Your task to perform on an android device: Go to eBay Image 0: 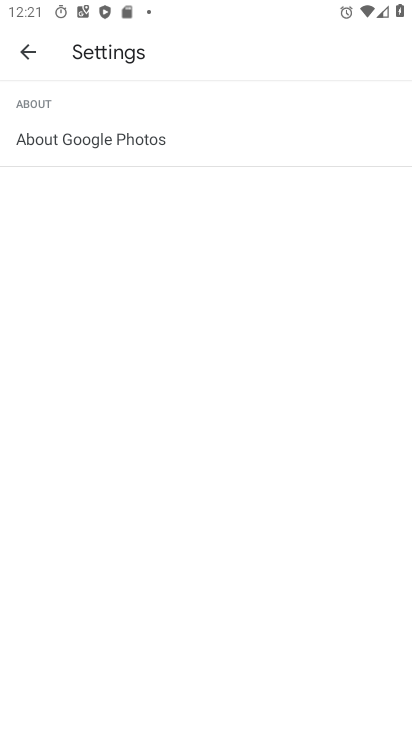
Step 0: press home button
Your task to perform on an android device: Go to eBay Image 1: 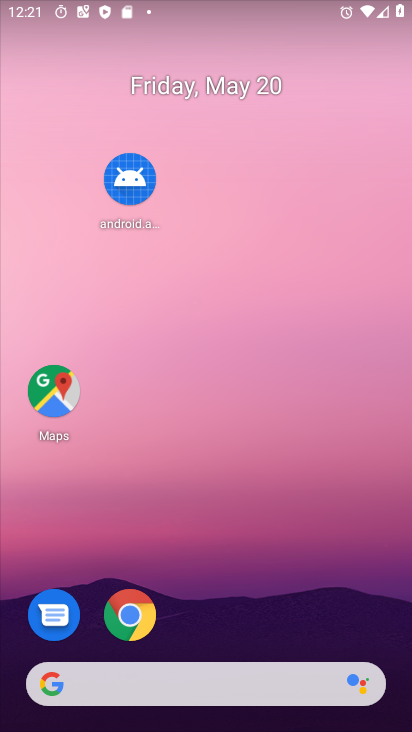
Step 1: click (136, 625)
Your task to perform on an android device: Go to eBay Image 2: 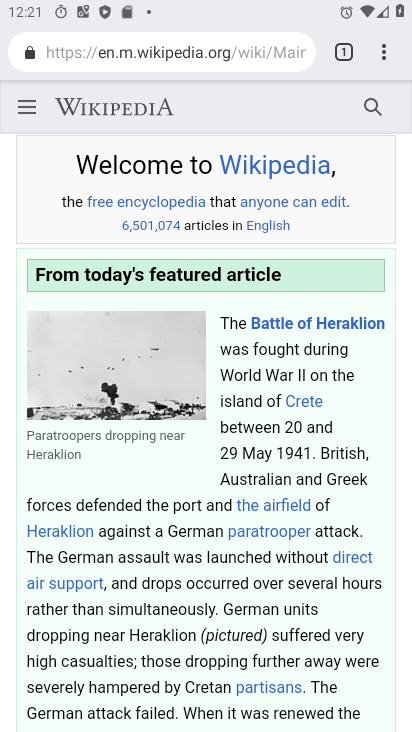
Step 2: click (121, 49)
Your task to perform on an android device: Go to eBay Image 3: 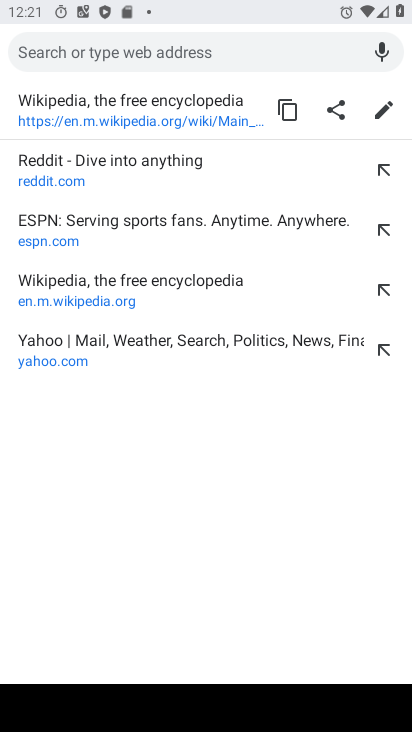
Step 3: type "ebay.com"
Your task to perform on an android device: Go to eBay Image 4: 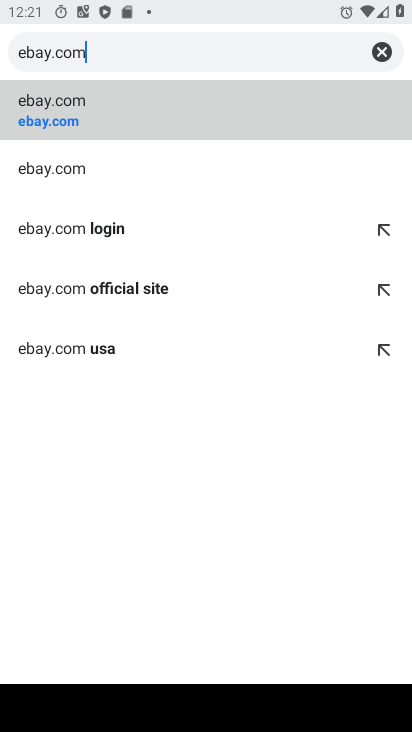
Step 4: click (262, 104)
Your task to perform on an android device: Go to eBay Image 5: 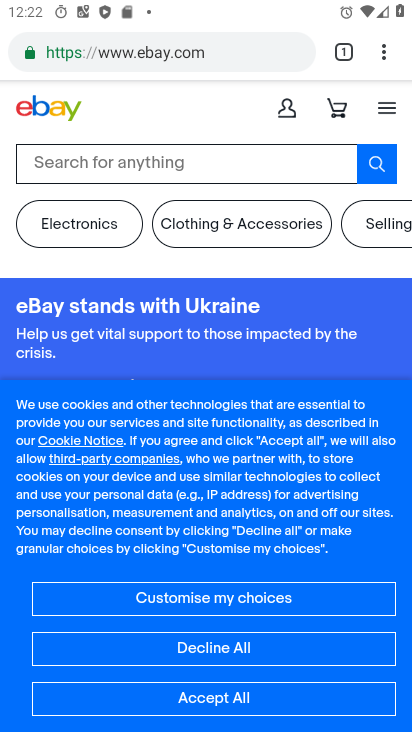
Step 5: task complete